Your task to perform on an android device: Open sound settings Image 0: 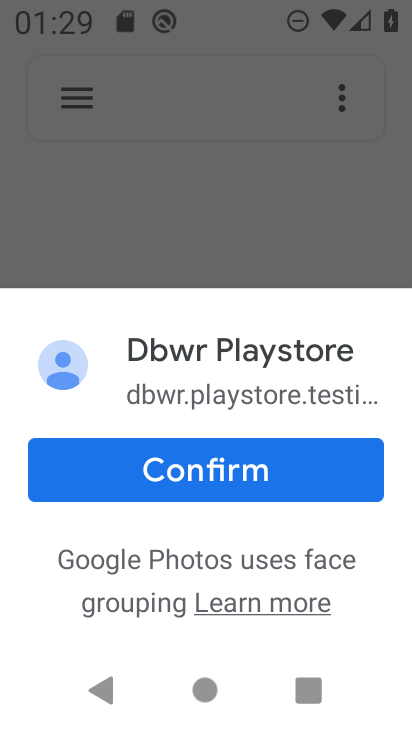
Step 0: drag from (223, 105) to (219, 718)
Your task to perform on an android device: Open sound settings Image 1: 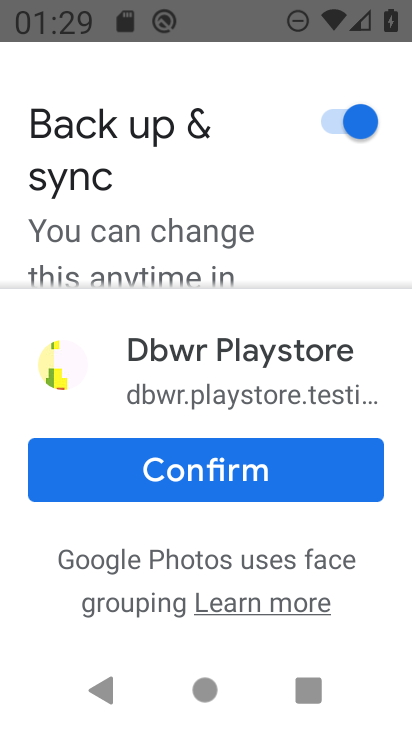
Step 1: drag from (228, 22) to (192, 546)
Your task to perform on an android device: Open sound settings Image 2: 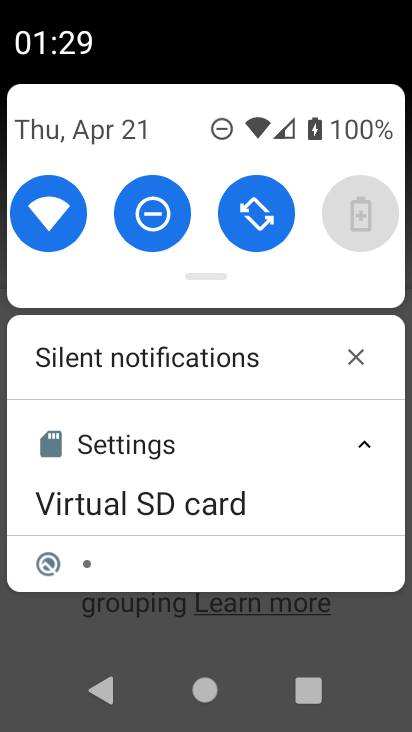
Step 2: drag from (181, 117) to (168, 680)
Your task to perform on an android device: Open sound settings Image 3: 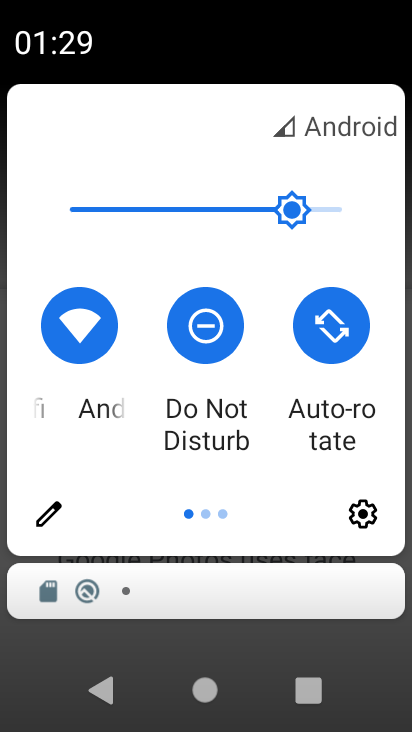
Step 3: click (368, 519)
Your task to perform on an android device: Open sound settings Image 4: 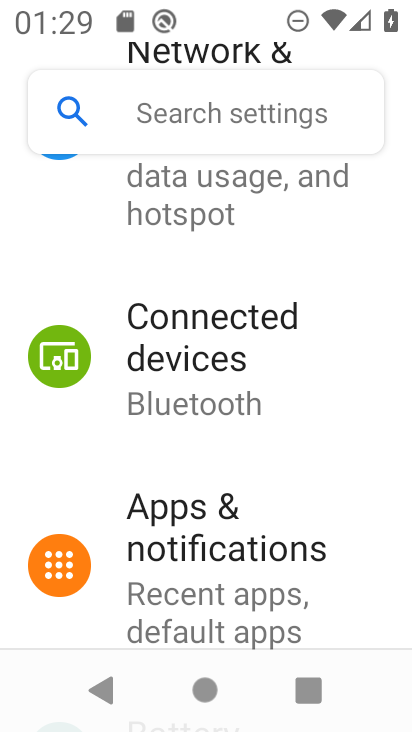
Step 4: drag from (149, 611) to (125, 188)
Your task to perform on an android device: Open sound settings Image 5: 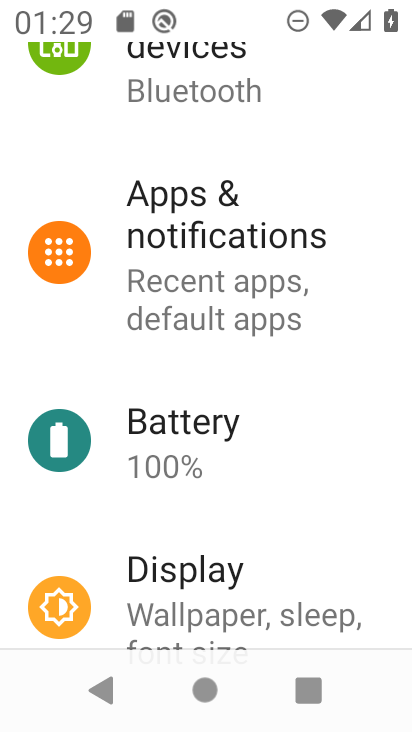
Step 5: drag from (220, 494) to (221, 154)
Your task to perform on an android device: Open sound settings Image 6: 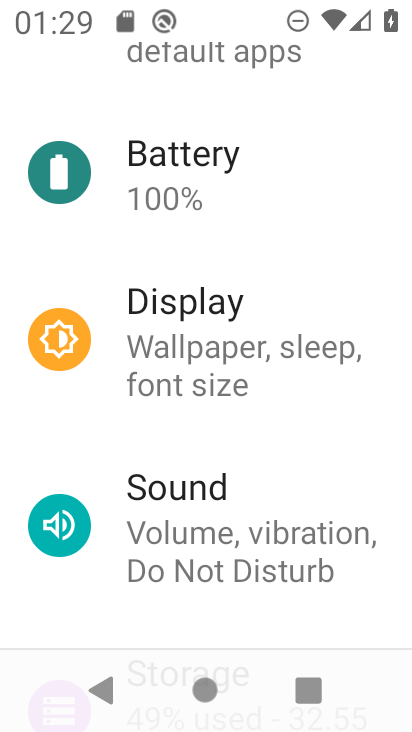
Step 6: click (205, 501)
Your task to perform on an android device: Open sound settings Image 7: 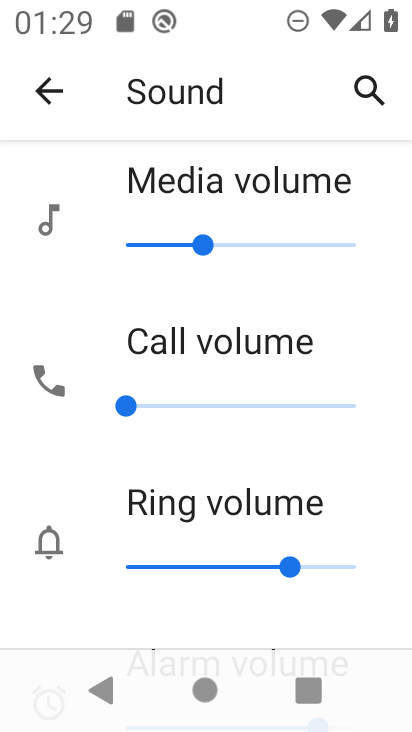
Step 7: task complete